Your task to perform on an android device: Is it going to rain this weekend? Image 0: 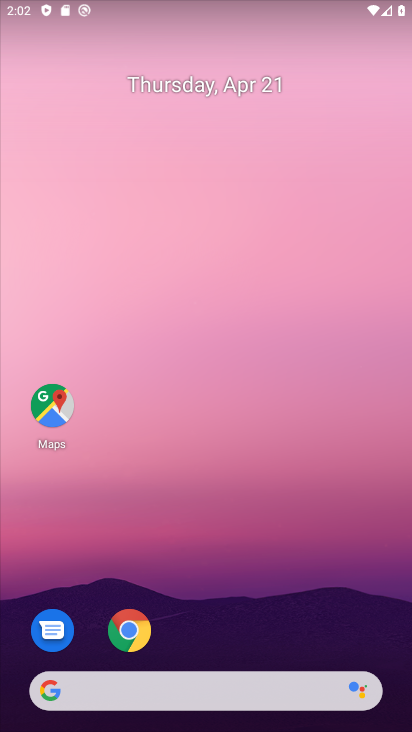
Step 0: click (238, 692)
Your task to perform on an android device: Is it going to rain this weekend? Image 1: 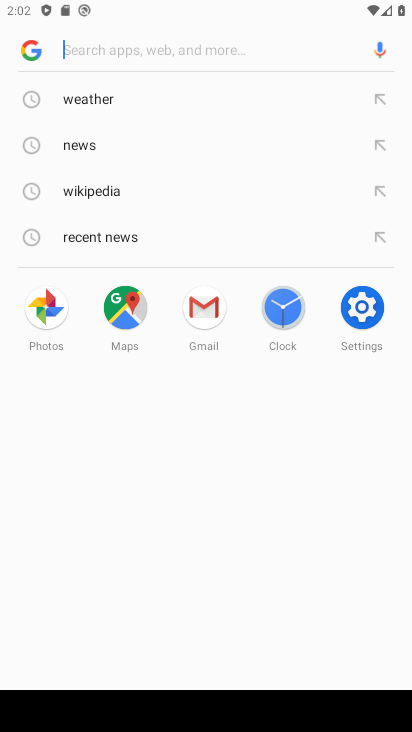
Step 1: click (102, 98)
Your task to perform on an android device: Is it going to rain this weekend? Image 2: 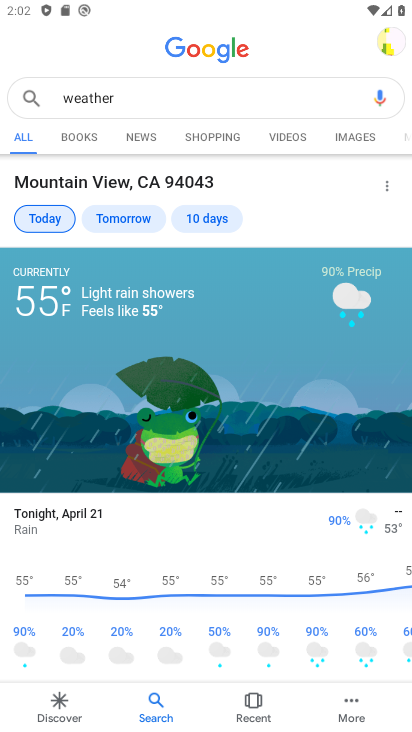
Step 2: click (216, 219)
Your task to perform on an android device: Is it going to rain this weekend? Image 3: 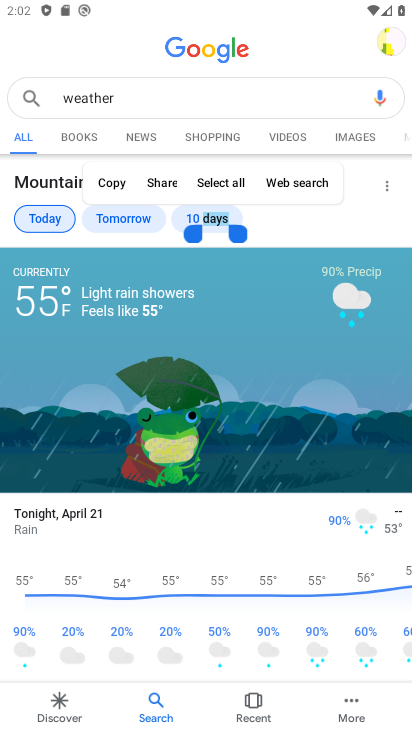
Step 3: click (218, 213)
Your task to perform on an android device: Is it going to rain this weekend? Image 4: 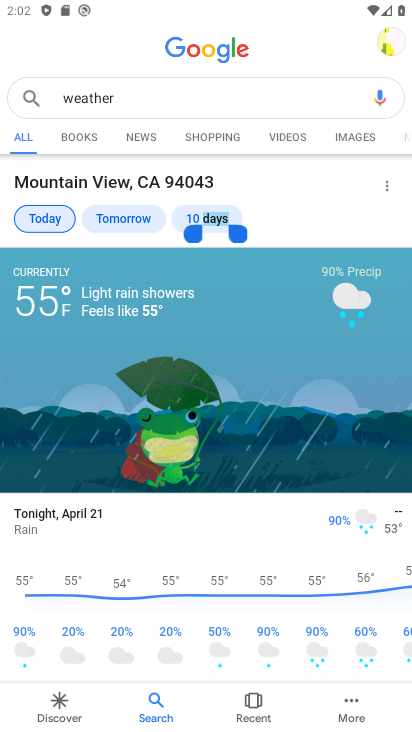
Step 4: click (318, 313)
Your task to perform on an android device: Is it going to rain this weekend? Image 5: 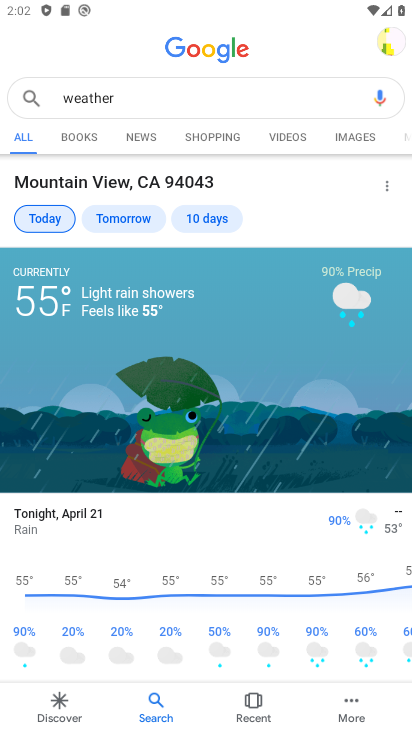
Step 5: click (219, 221)
Your task to perform on an android device: Is it going to rain this weekend? Image 6: 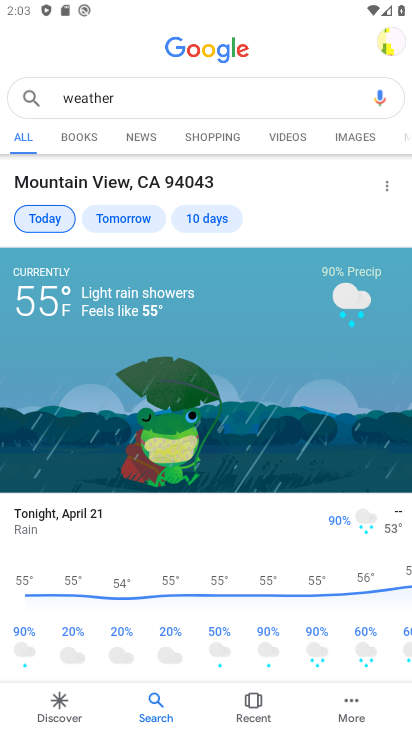
Step 6: task complete